Your task to perform on an android device: check the backup settings in the google photos Image 0: 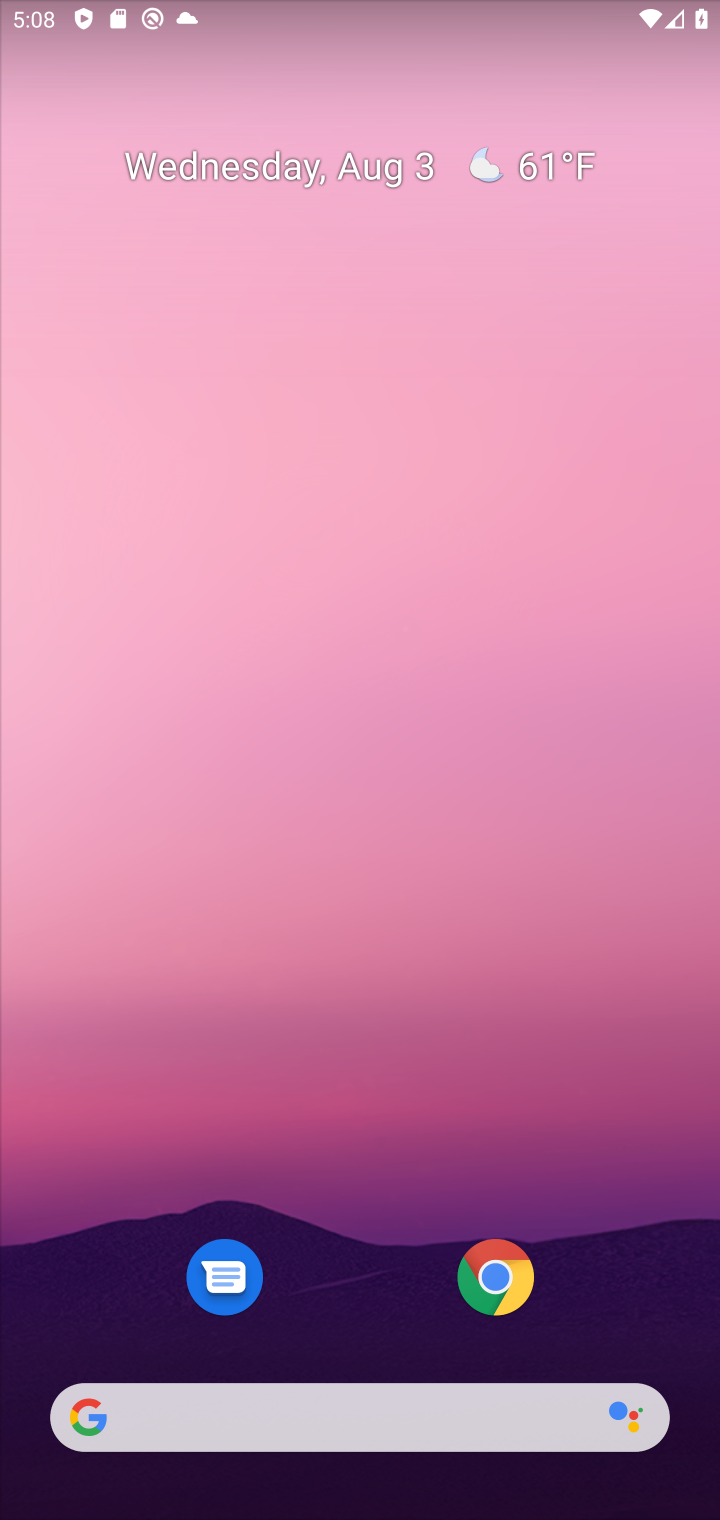
Step 0: drag from (384, 1336) to (376, 111)
Your task to perform on an android device: check the backup settings in the google photos Image 1: 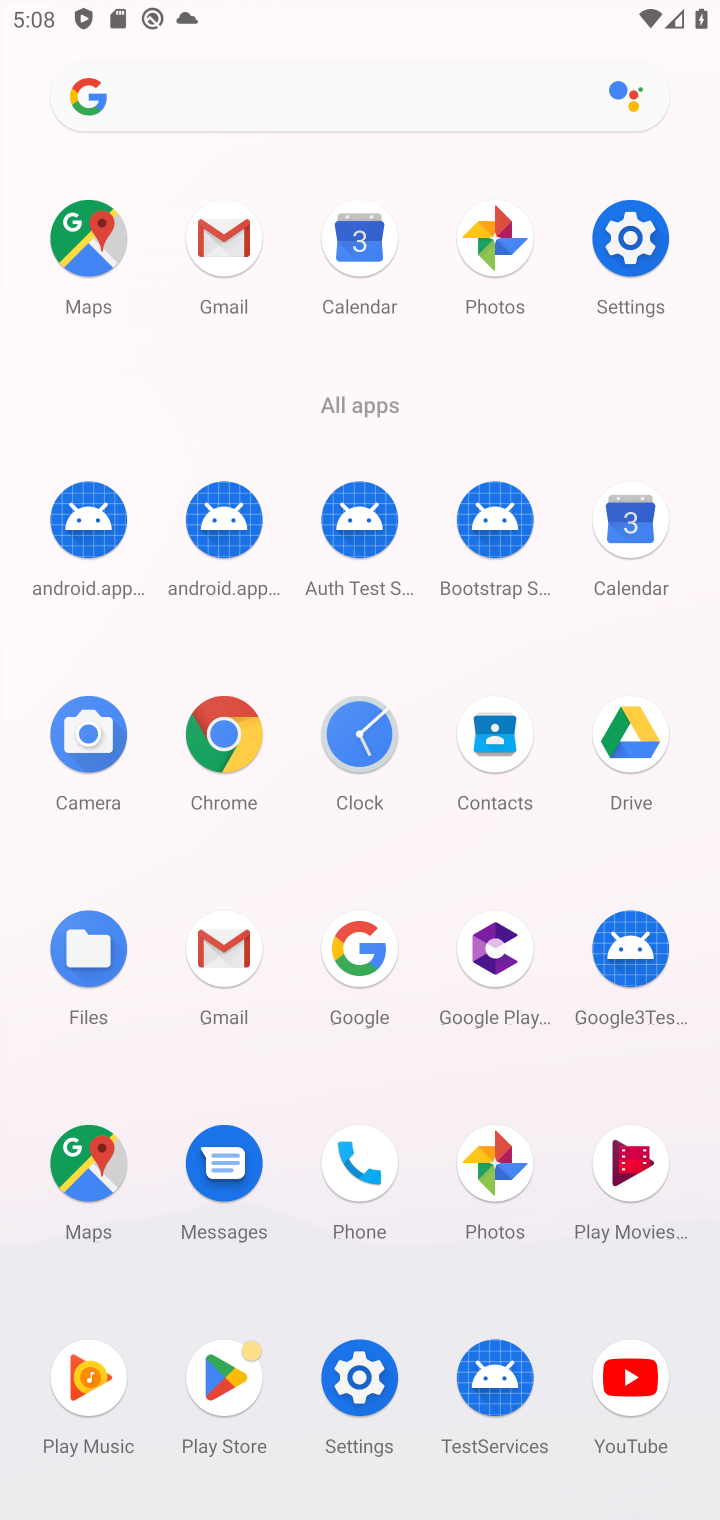
Step 1: click (477, 1135)
Your task to perform on an android device: check the backup settings in the google photos Image 2: 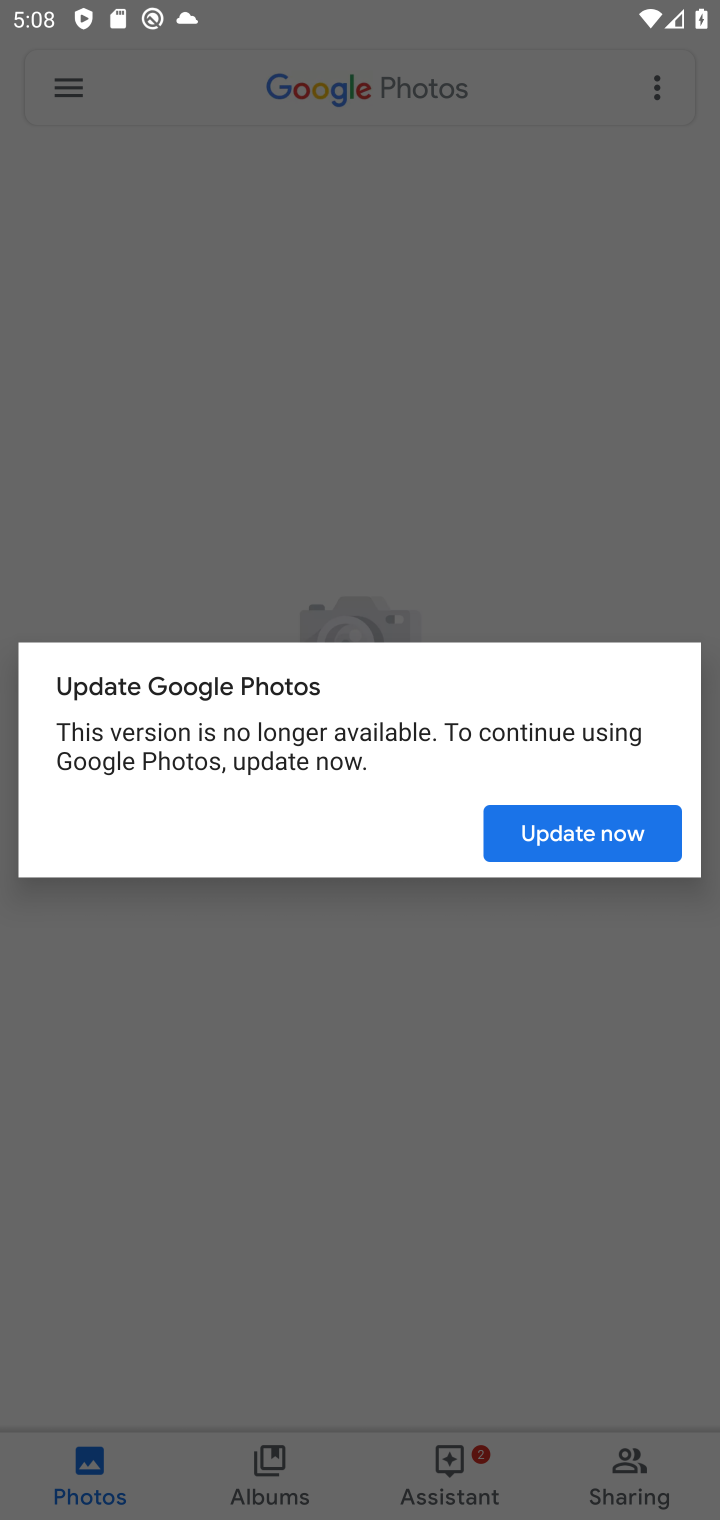
Step 2: click (522, 820)
Your task to perform on an android device: check the backup settings in the google photos Image 3: 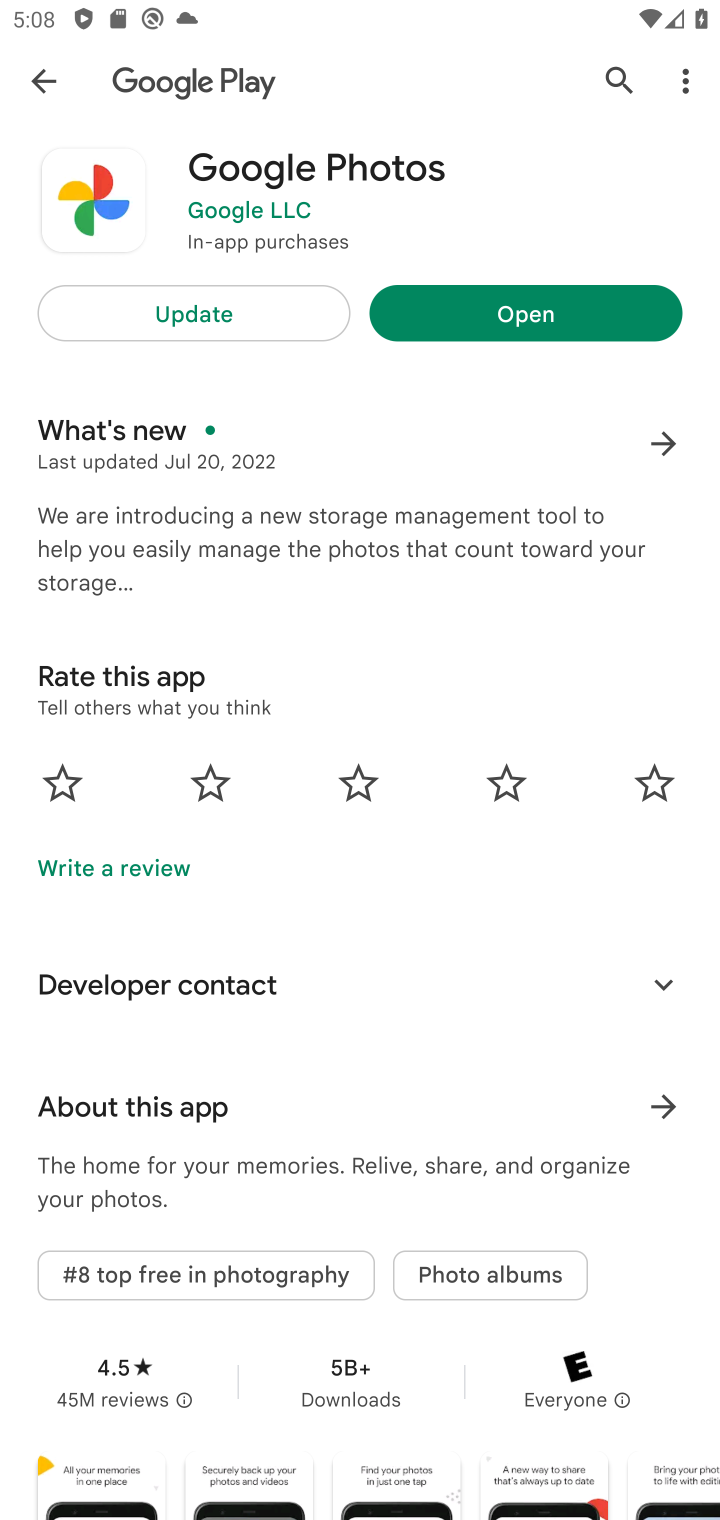
Step 3: click (552, 336)
Your task to perform on an android device: check the backup settings in the google photos Image 4: 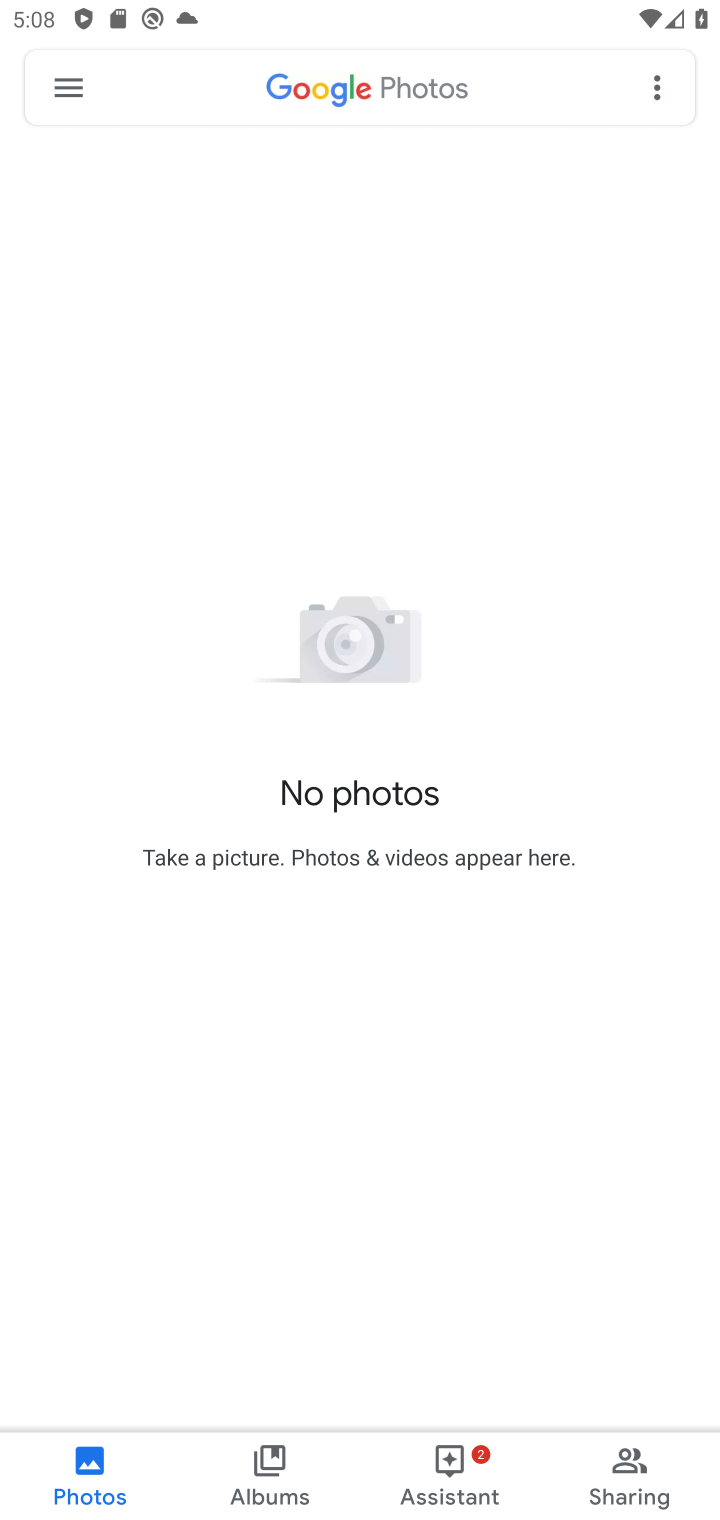
Step 4: click (27, 64)
Your task to perform on an android device: check the backup settings in the google photos Image 5: 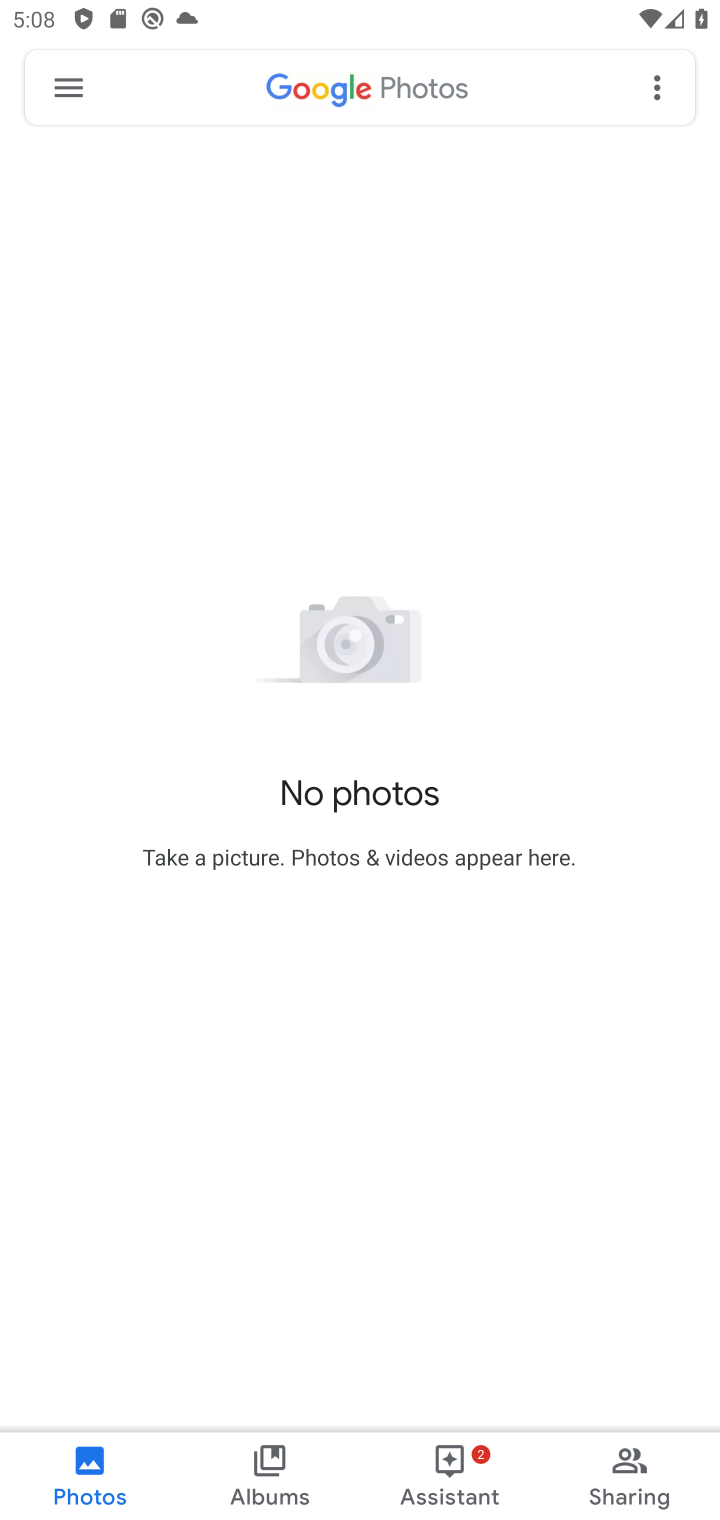
Step 5: click (75, 88)
Your task to perform on an android device: check the backup settings in the google photos Image 6: 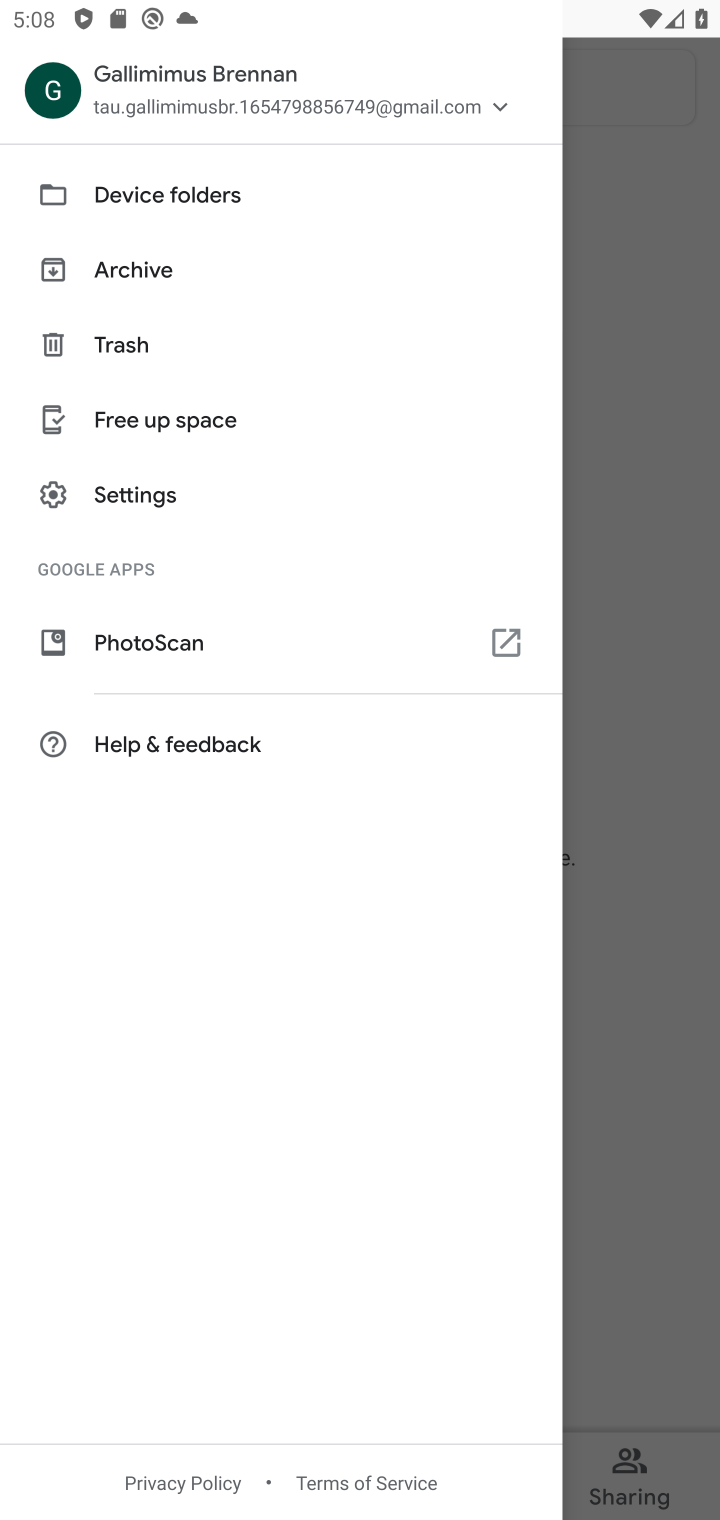
Step 6: click (141, 481)
Your task to perform on an android device: check the backup settings in the google photos Image 7: 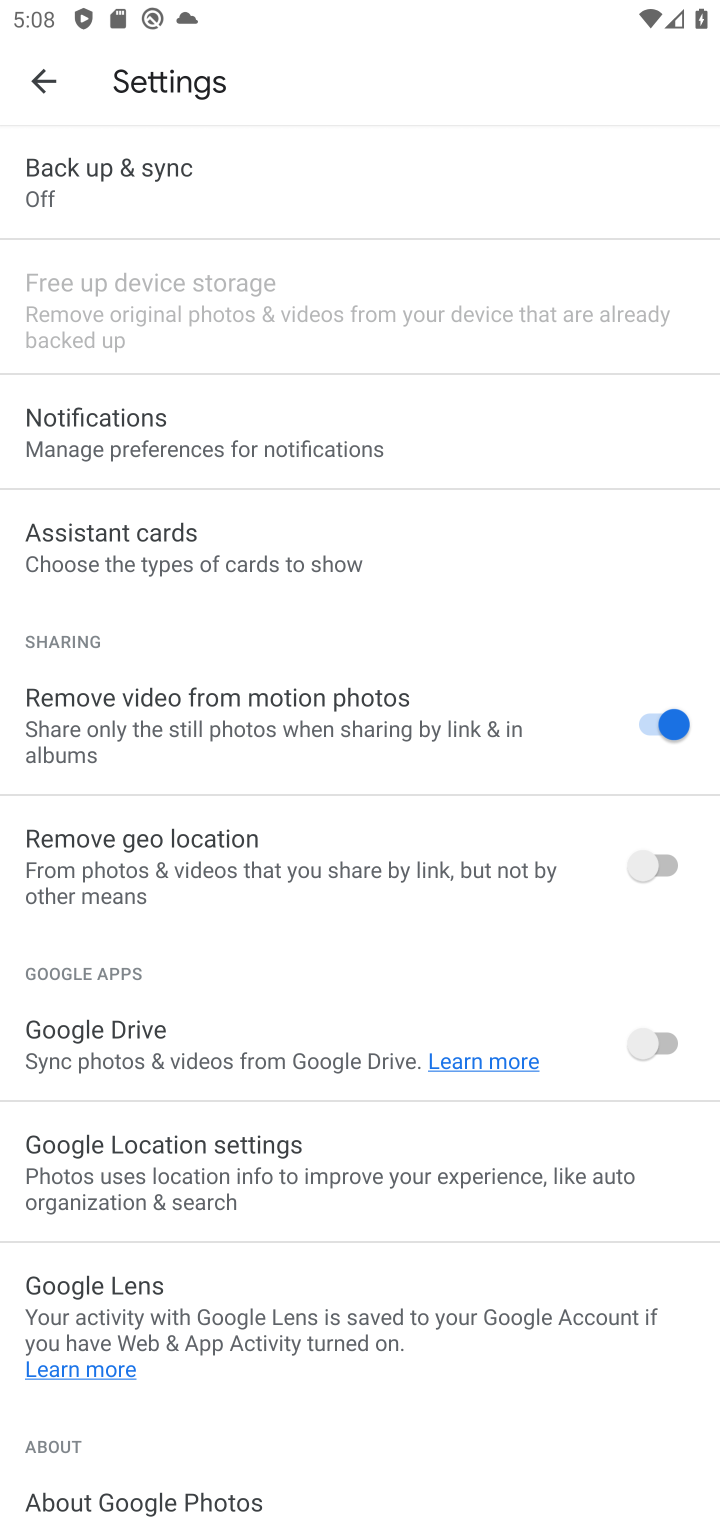
Step 7: click (371, 205)
Your task to perform on an android device: check the backup settings in the google photos Image 8: 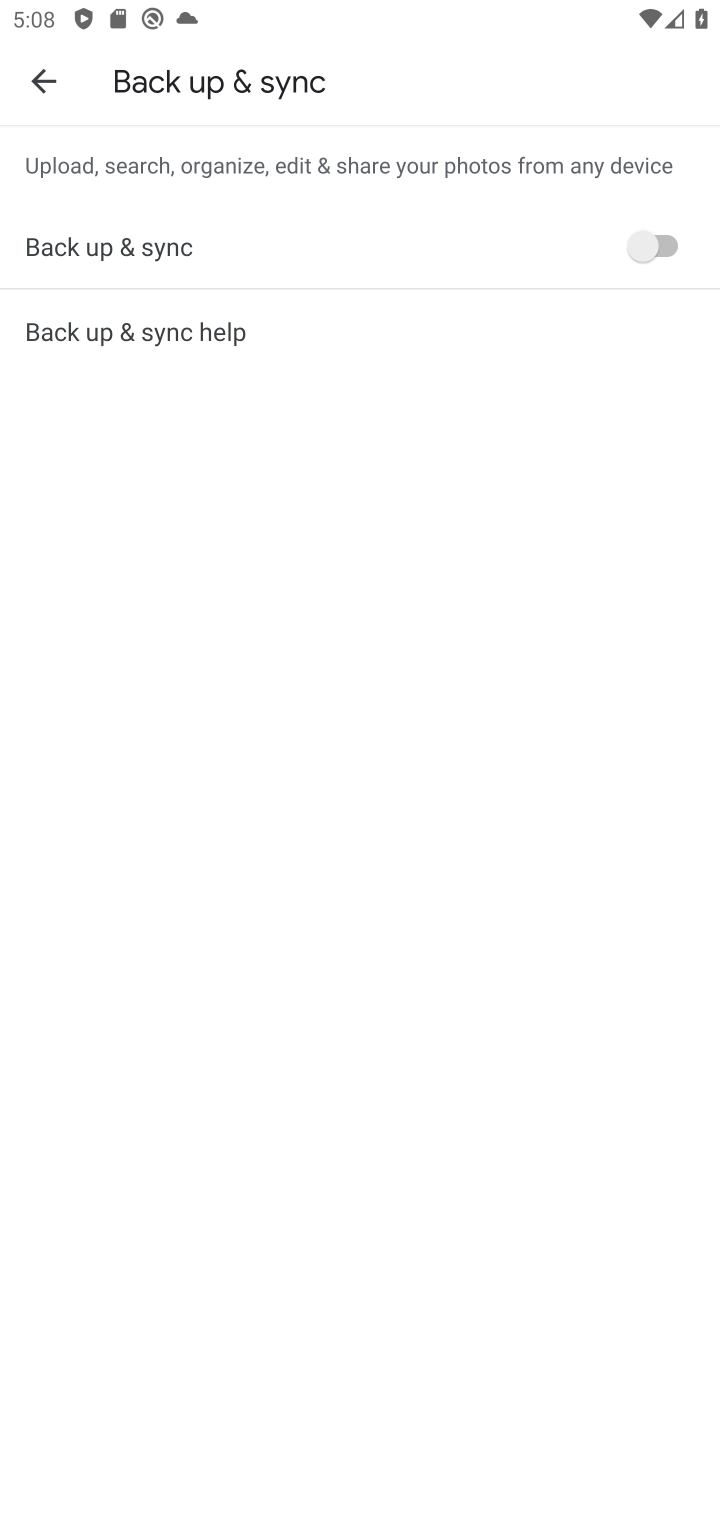
Step 8: task complete